Your task to perform on an android device: turn pop-ups off in chrome Image 0: 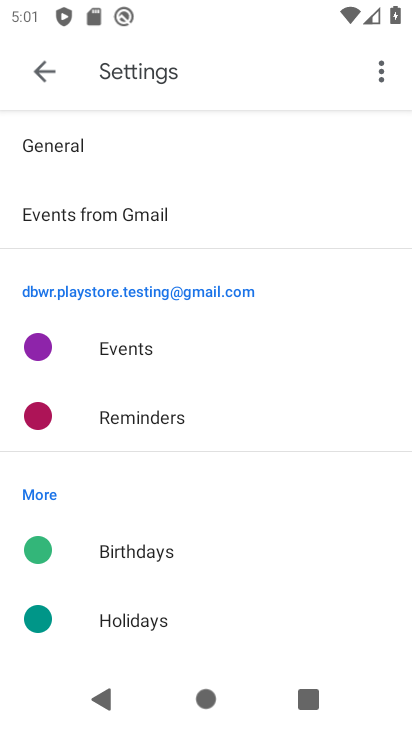
Step 0: press home button
Your task to perform on an android device: turn pop-ups off in chrome Image 1: 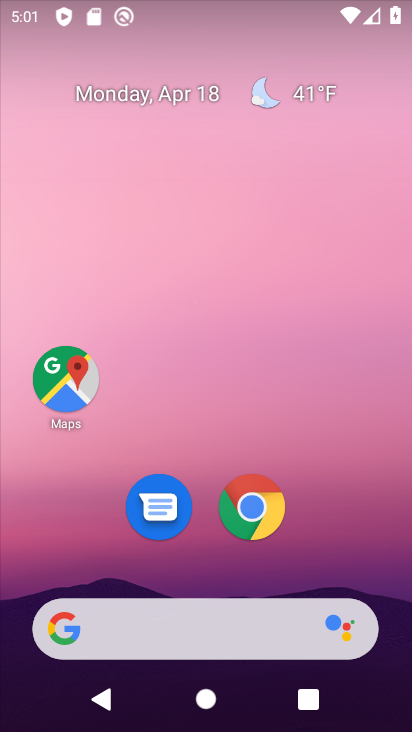
Step 1: drag from (180, 645) to (183, 28)
Your task to perform on an android device: turn pop-ups off in chrome Image 2: 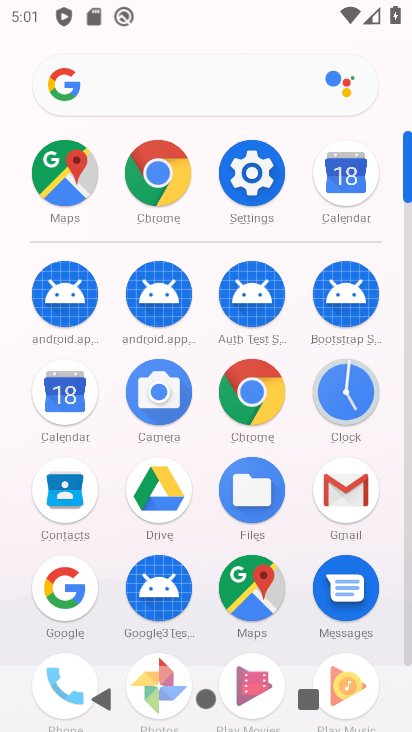
Step 2: click (258, 397)
Your task to perform on an android device: turn pop-ups off in chrome Image 3: 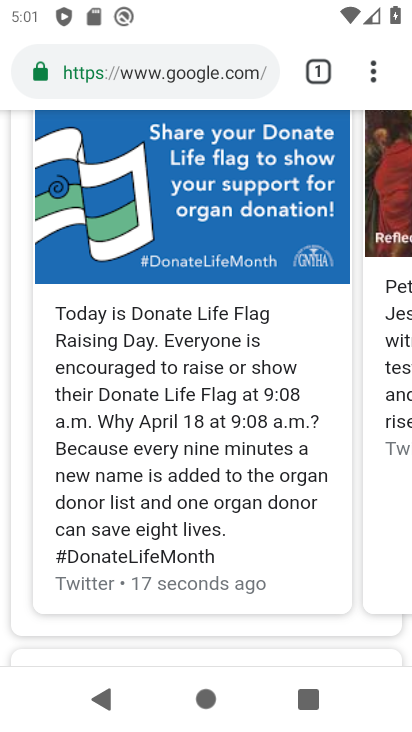
Step 3: click (384, 78)
Your task to perform on an android device: turn pop-ups off in chrome Image 4: 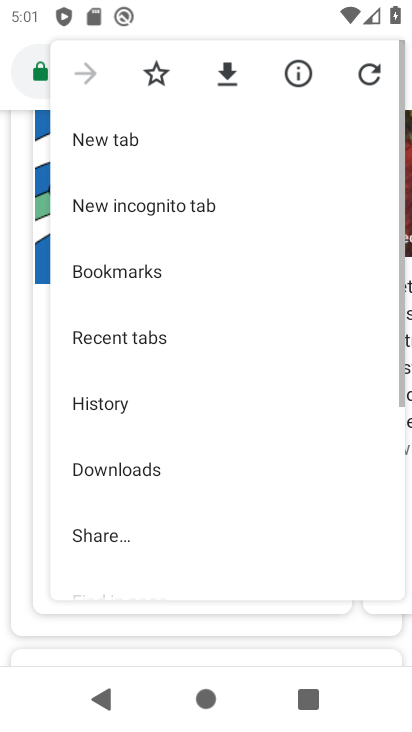
Step 4: drag from (320, 591) to (295, 126)
Your task to perform on an android device: turn pop-ups off in chrome Image 5: 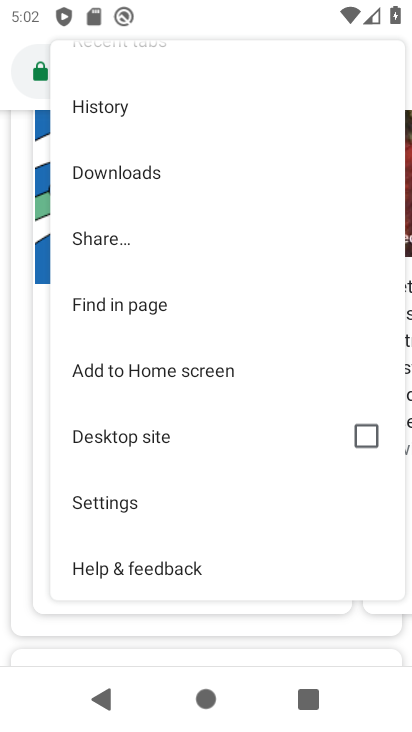
Step 5: click (191, 507)
Your task to perform on an android device: turn pop-ups off in chrome Image 6: 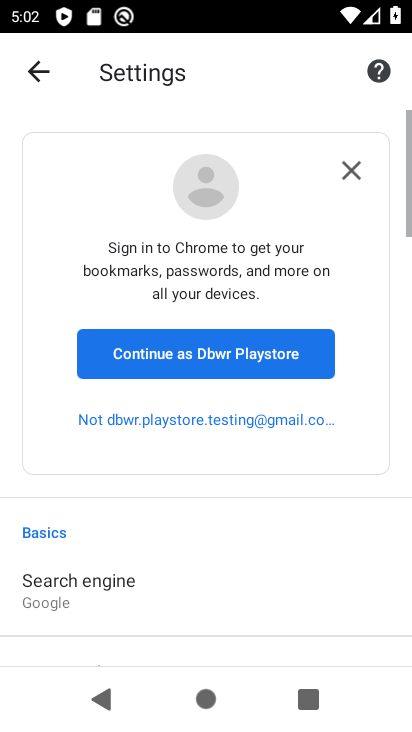
Step 6: drag from (218, 538) to (166, 107)
Your task to perform on an android device: turn pop-ups off in chrome Image 7: 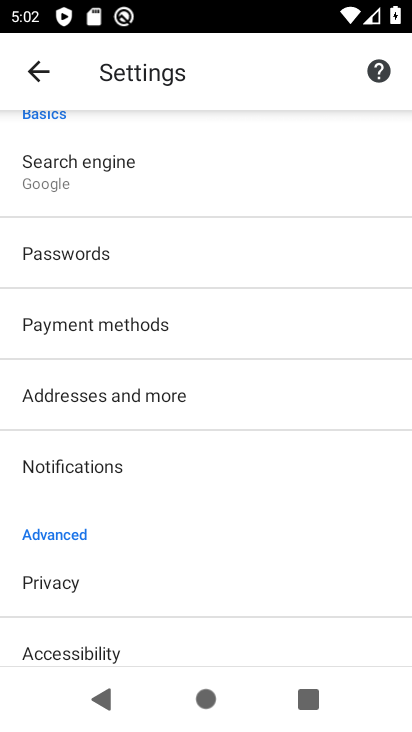
Step 7: drag from (226, 573) to (212, 233)
Your task to perform on an android device: turn pop-ups off in chrome Image 8: 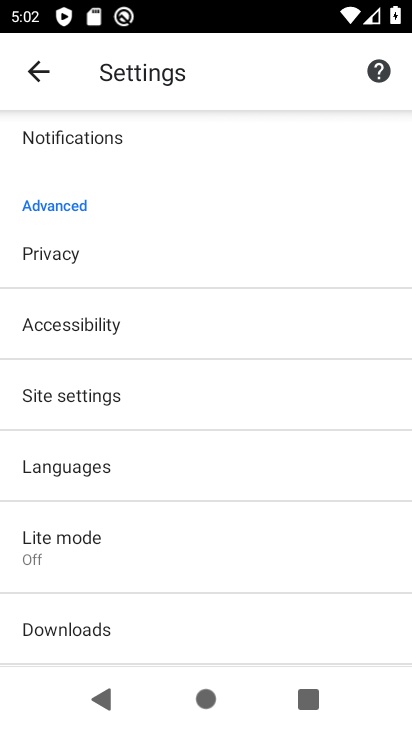
Step 8: click (91, 403)
Your task to perform on an android device: turn pop-ups off in chrome Image 9: 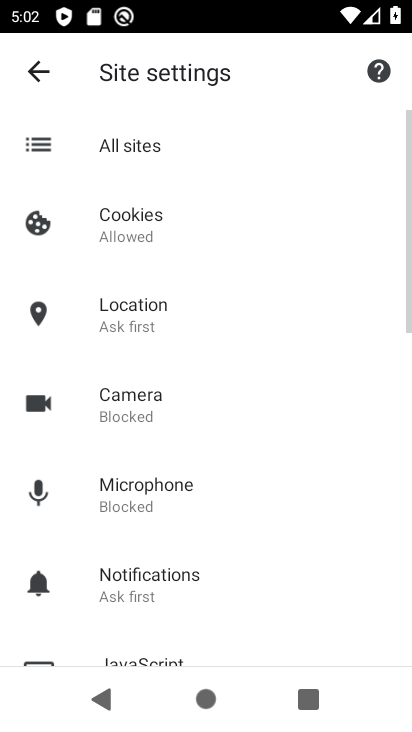
Step 9: drag from (309, 624) to (308, 153)
Your task to perform on an android device: turn pop-ups off in chrome Image 10: 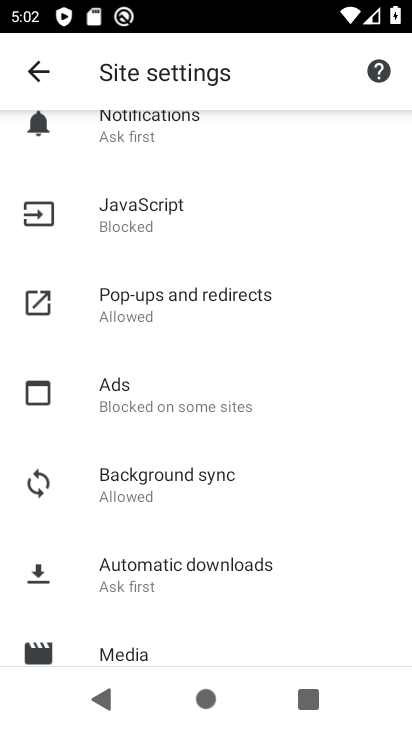
Step 10: click (192, 318)
Your task to perform on an android device: turn pop-ups off in chrome Image 11: 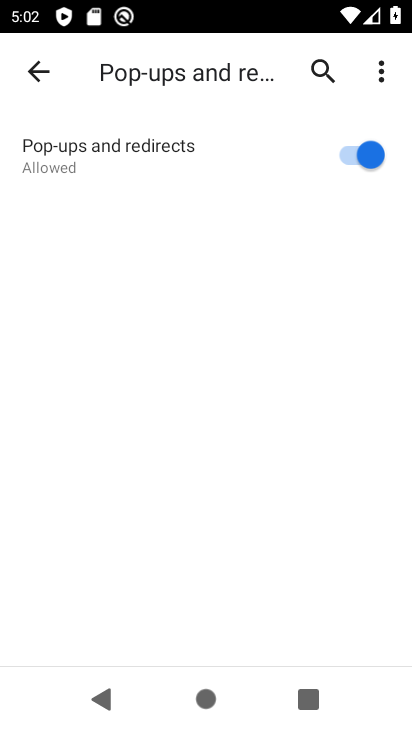
Step 11: click (350, 162)
Your task to perform on an android device: turn pop-ups off in chrome Image 12: 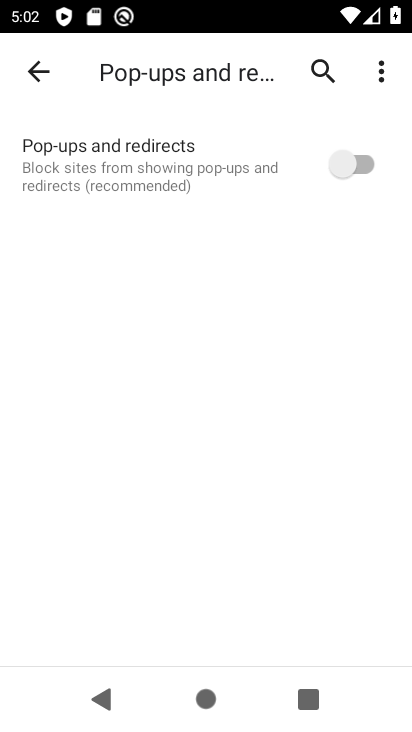
Step 12: task complete